Your task to perform on an android device: add a label to a message in the gmail app Image 0: 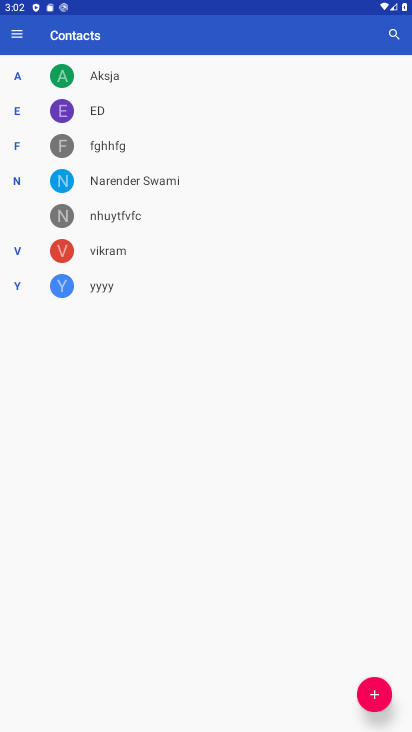
Step 0: drag from (232, 662) to (225, 81)
Your task to perform on an android device: add a label to a message in the gmail app Image 1: 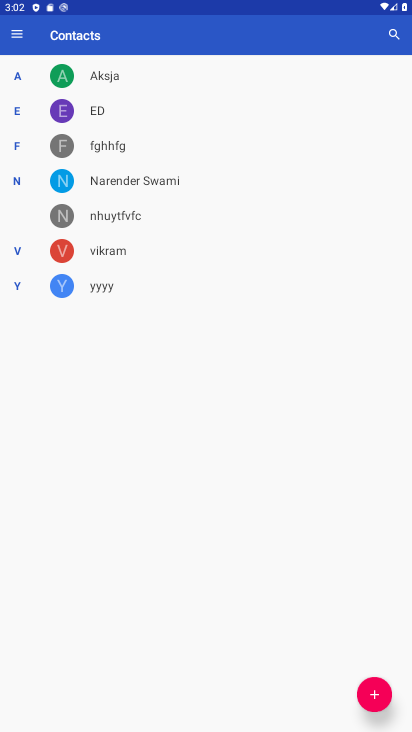
Step 1: press home button
Your task to perform on an android device: add a label to a message in the gmail app Image 2: 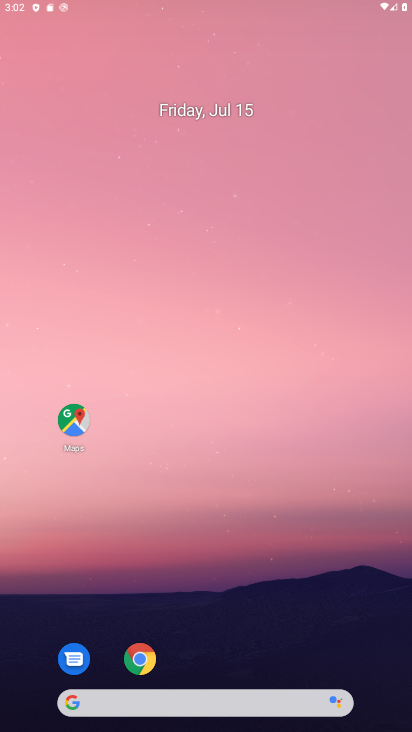
Step 2: drag from (203, 688) to (222, 143)
Your task to perform on an android device: add a label to a message in the gmail app Image 3: 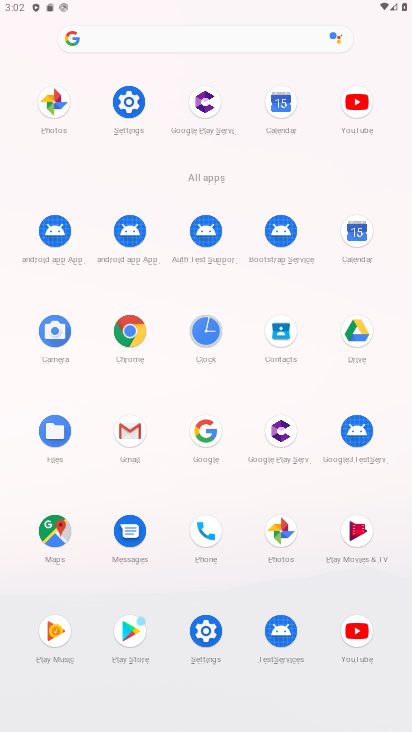
Step 3: drag from (203, 662) to (203, 151)
Your task to perform on an android device: add a label to a message in the gmail app Image 4: 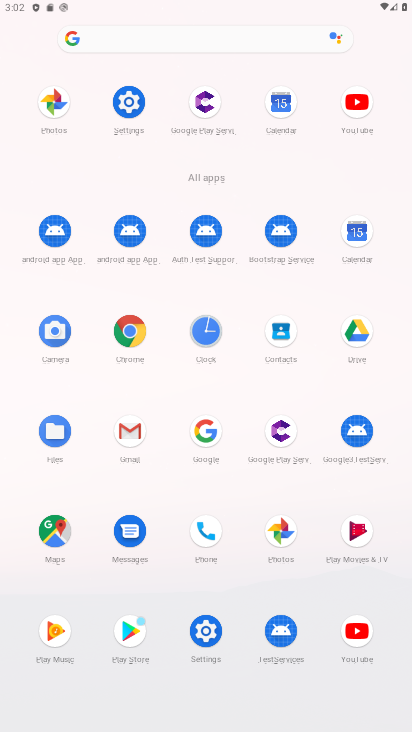
Step 4: click (134, 423)
Your task to perform on an android device: add a label to a message in the gmail app Image 5: 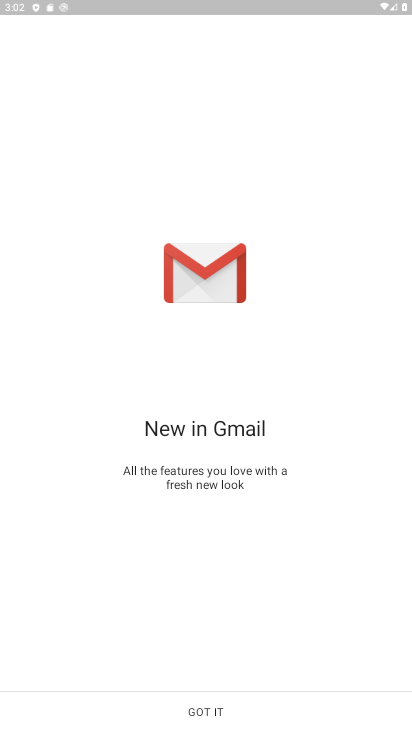
Step 5: click (203, 706)
Your task to perform on an android device: add a label to a message in the gmail app Image 6: 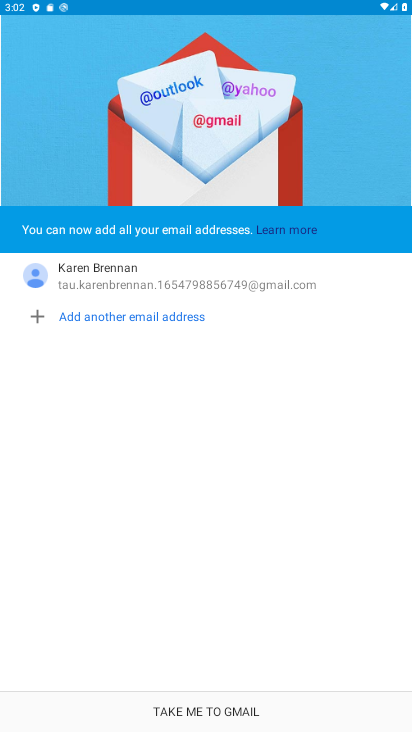
Step 6: click (196, 707)
Your task to perform on an android device: add a label to a message in the gmail app Image 7: 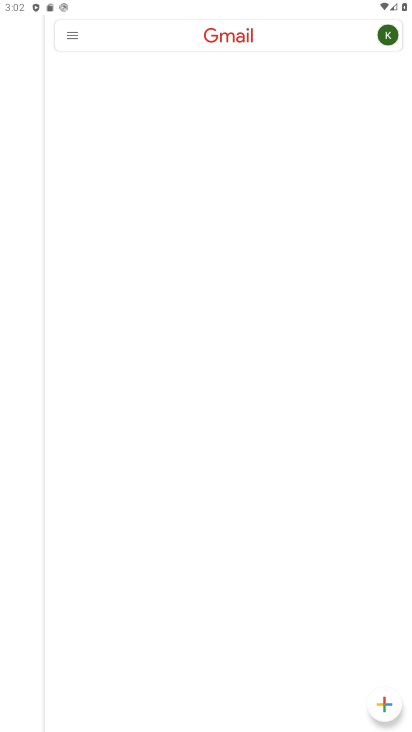
Step 7: drag from (245, 659) to (288, 248)
Your task to perform on an android device: add a label to a message in the gmail app Image 8: 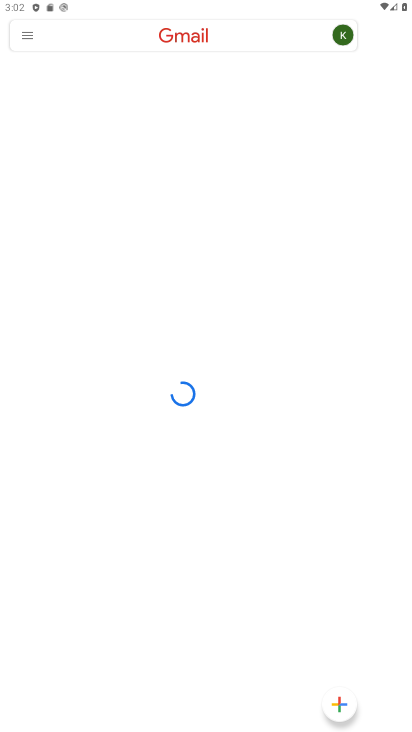
Step 8: drag from (232, 616) to (266, 298)
Your task to perform on an android device: add a label to a message in the gmail app Image 9: 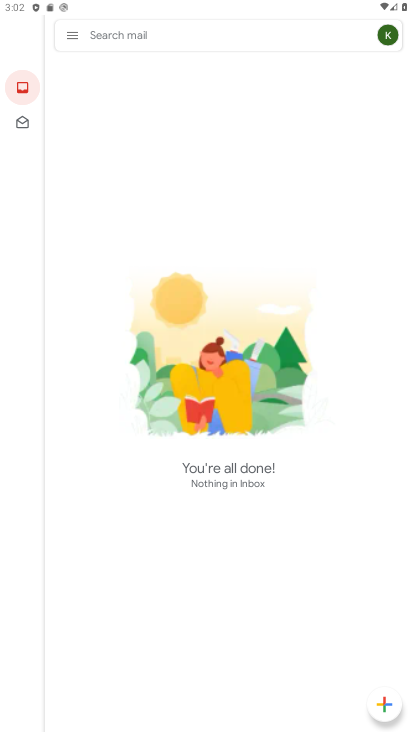
Step 9: drag from (221, 638) to (250, 324)
Your task to perform on an android device: add a label to a message in the gmail app Image 10: 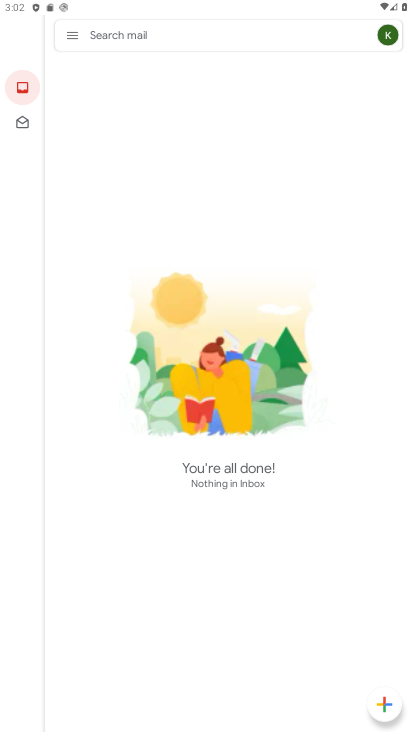
Step 10: click (67, 22)
Your task to perform on an android device: add a label to a message in the gmail app Image 11: 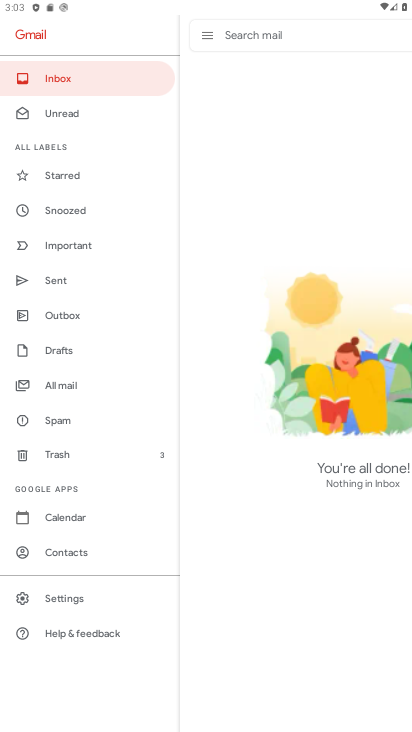
Step 11: drag from (217, 583) to (286, 225)
Your task to perform on an android device: add a label to a message in the gmail app Image 12: 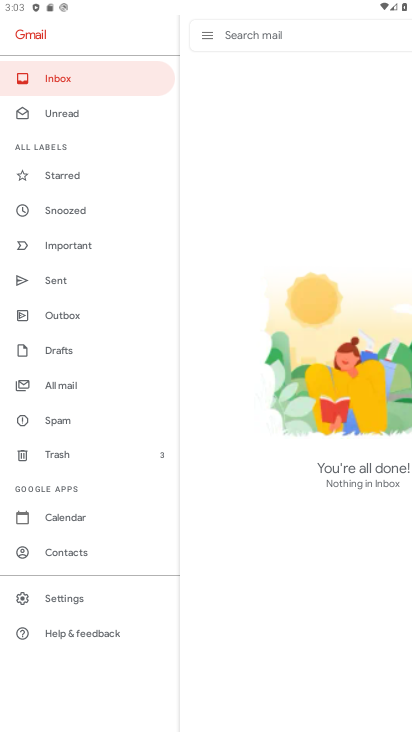
Step 12: drag from (87, 444) to (133, 150)
Your task to perform on an android device: add a label to a message in the gmail app Image 13: 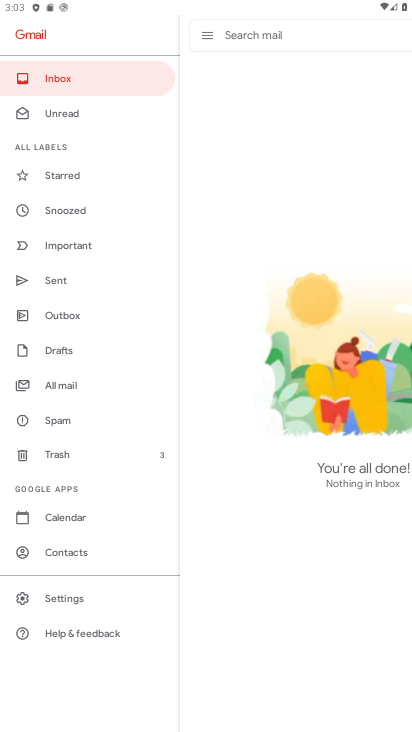
Step 13: click (254, 369)
Your task to perform on an android device: add a label to a message in the gmail app Image 14: 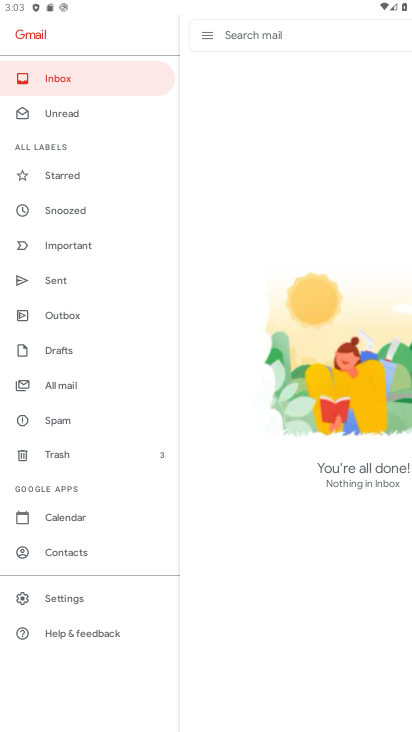
Step 14: task complete